Your task to perform on an android device: open a bookmark in the chrome app Image 0: 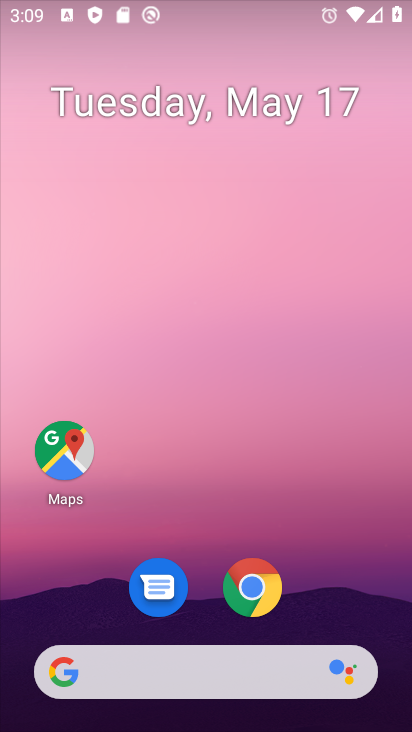
Step 0: drag from (226, 542) to (303, 124)
Your task to perform on an android device: open a bookmark in the chrome app Image 1: 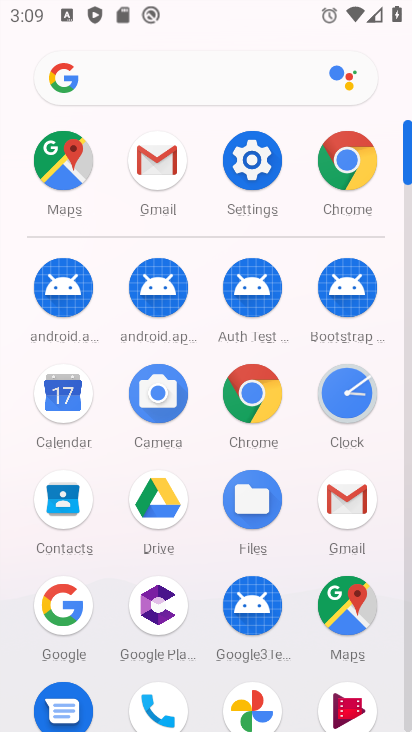
Step 1: click (251, 397)
Your task to perform on an android device: open a bookmark in the chrome app Image 2: 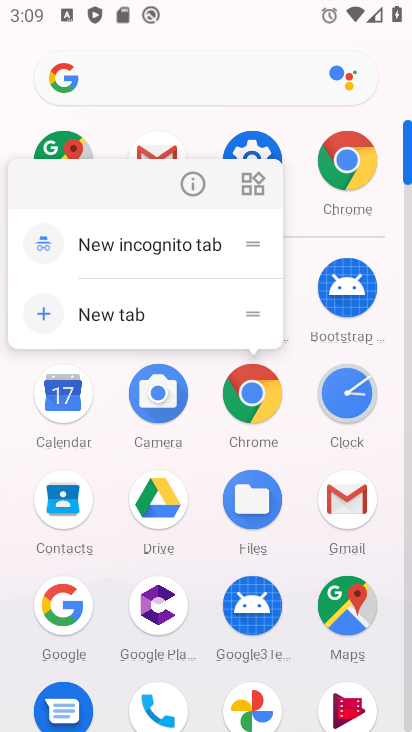
Step 2: click (189, 171)
Your task to perform on an android device: open a bookmark in the chrome app Image 3: 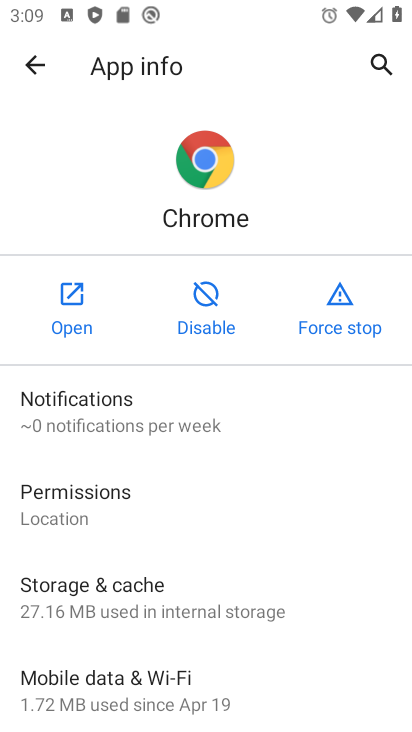
Step 3: click (95, 331)
Your task to perform on an android device: open a bookmark in the chrome app Image 4: 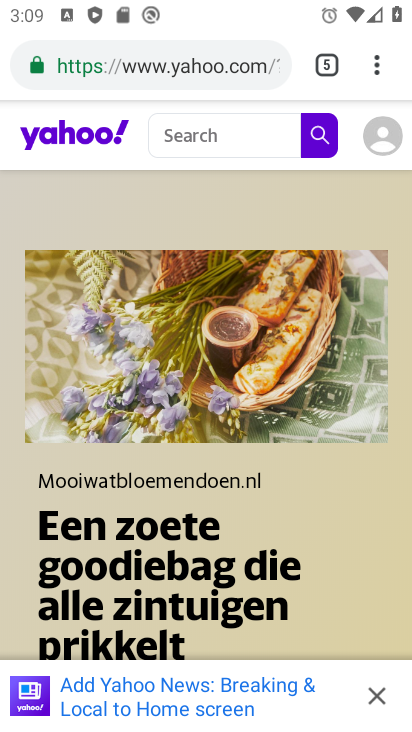
Step 4: click (379, 71)
Your task to perform on an android device: open a bookmark in the chrome app Image 5: 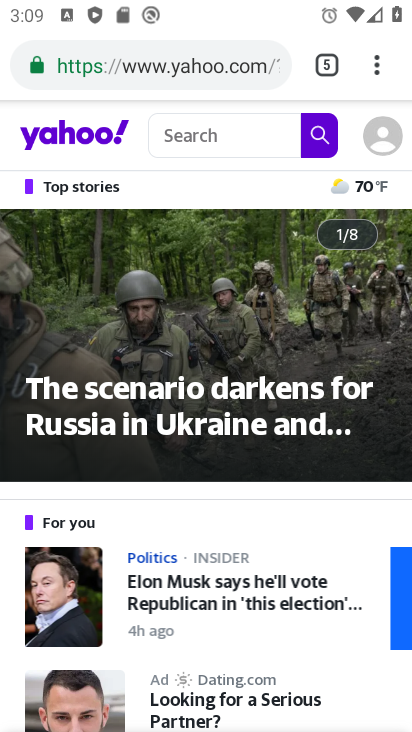
Step 5: click (374, 54)
Your task to perform on an android device: open a bookmark in the chrome app Image 6: 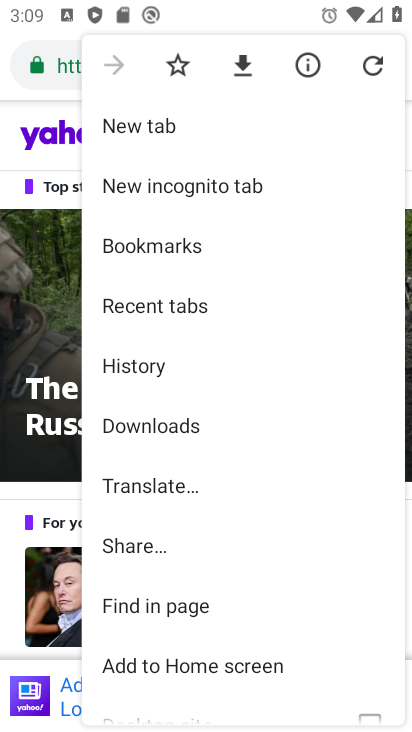
Step 6: click (159, 252)
Your task to perform on an android device: open a bookmark in the chrome app Image 7: 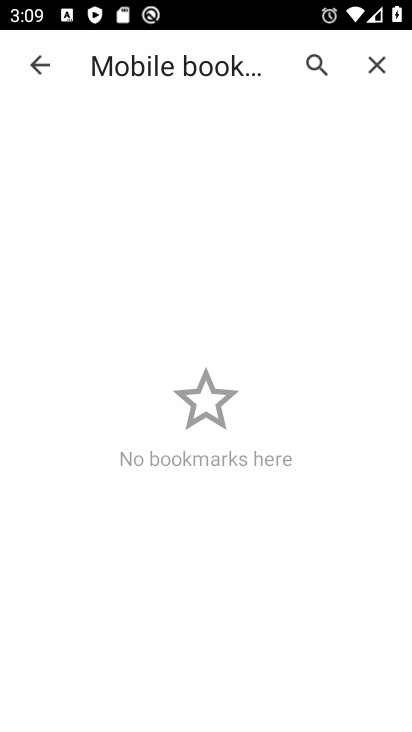
Step 7: task complete